Your task to perform on an android device: Open a new incognito window in the chrome app Image 0: 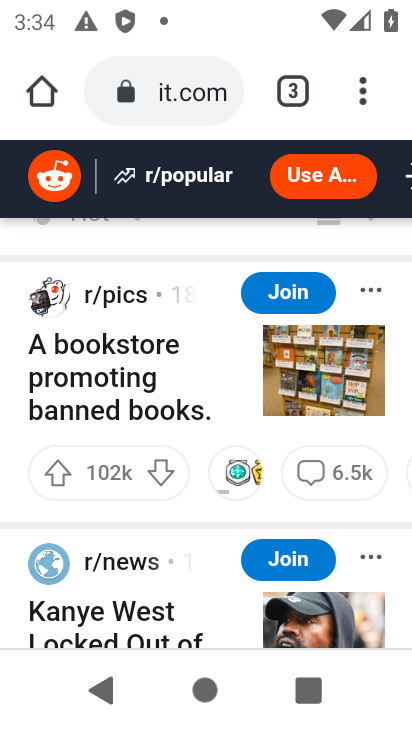
Step 0: press home button
Your task to perform on an android device: Open a new incognito window in the chrome app Image 1: 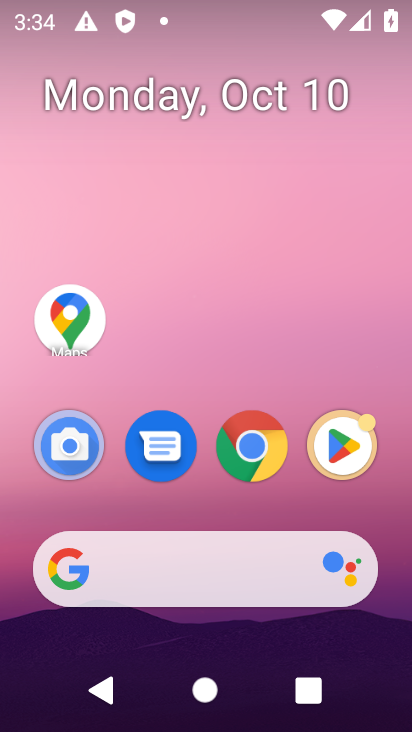
Step 1: click (261, 465)
Your task to perform on an android device: Open a new incognito window in the chrome app Image 2: 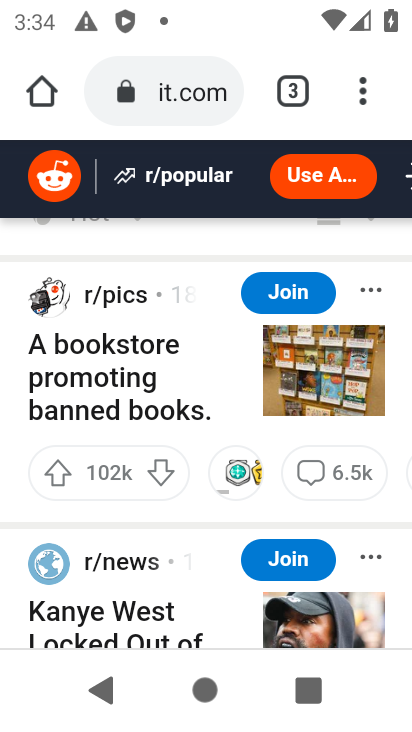
Step 2: click (363, 97)
Your task to perform on an android device: Open a new incognito window in the chrome app Image 3: 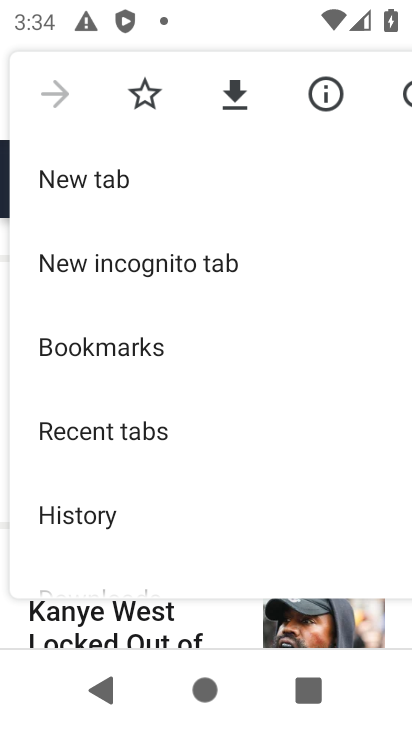
Step 3: click (104, 259)
Your task to perform on an android device: Open a new incognito window in the chrome app Image 4: 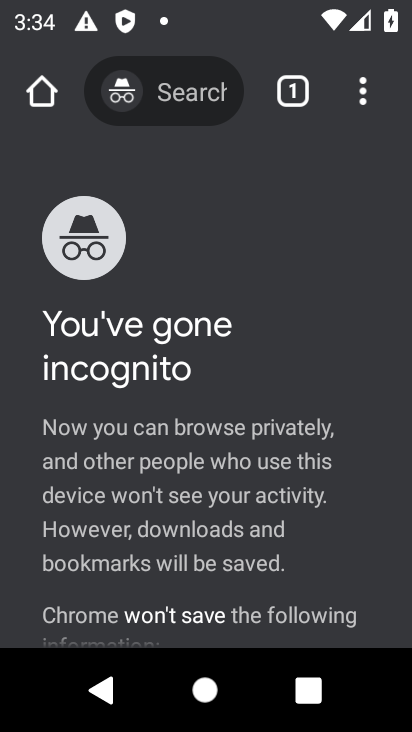
Step 4: task complete